Your task to perform on an android device: turn notification dots off Image 0: 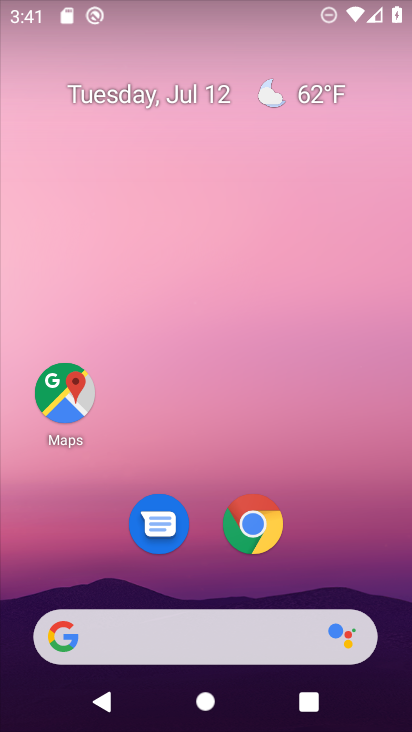
Step 0: drag from (357, 578) to (384, 85)
Your task to perform on an android device: turn notification dots off Image 1: 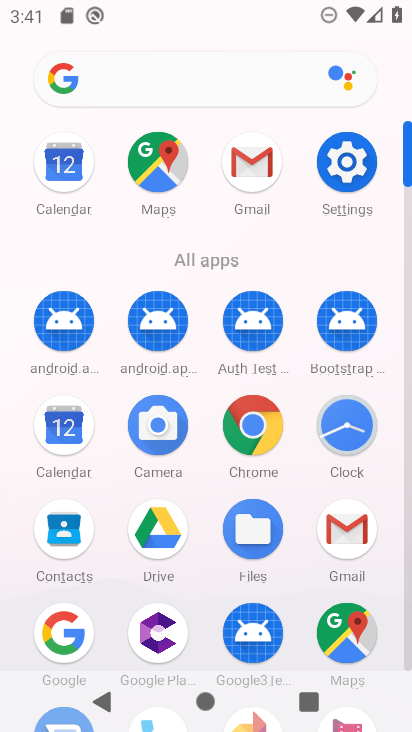
Step 1: click (338, 174)
Your task to perform on an android device: turn notification dots off Image 2: 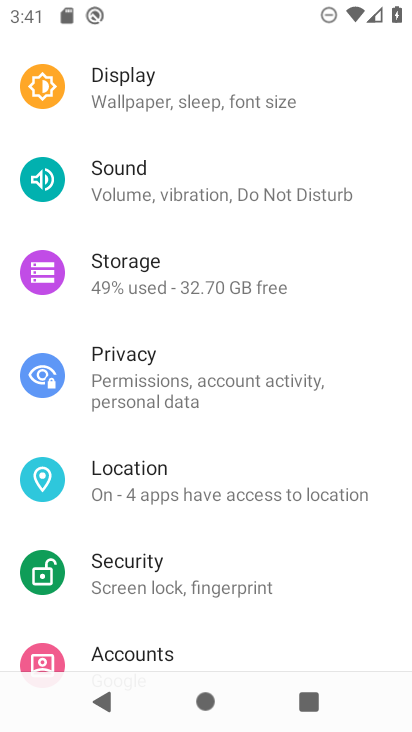
Step 2: drag from (267, 255) to (232, 660)
Your task to perform on an android device: turn notification dots off Image 3: 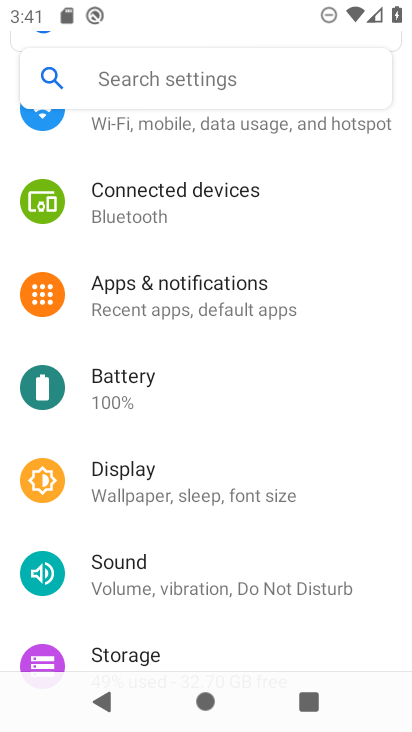
Step 3: click (222, 293)
Your task to perform on an android device: turn notification dots off Image 4: 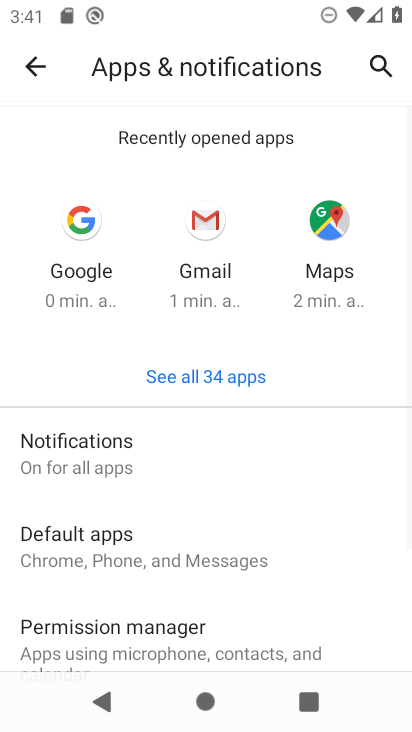
Step 4: click (119, 456)
Your task to perform on an android device: turn notification dots off Image 5: 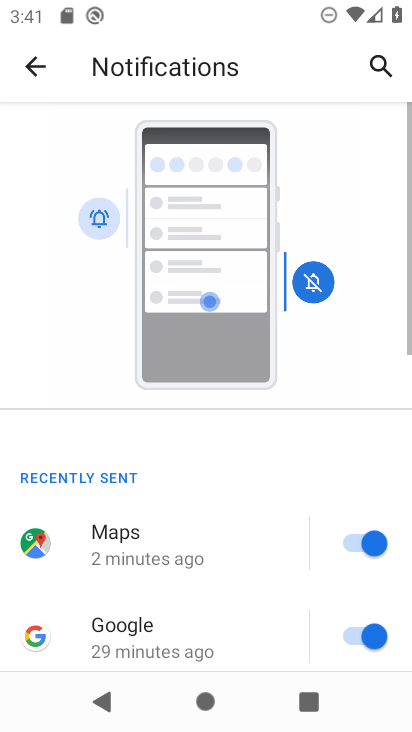
Step 5: drag from (243, 552) to (260, 63)
Your task to perform on an android device: turn notification dots off Image 6: 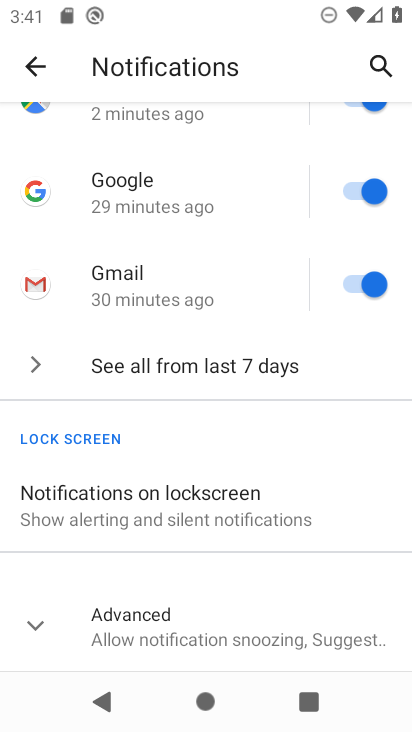
Step 6: click (32, 627)
Your task to perform on an android device: turn notification dots off Image 7: 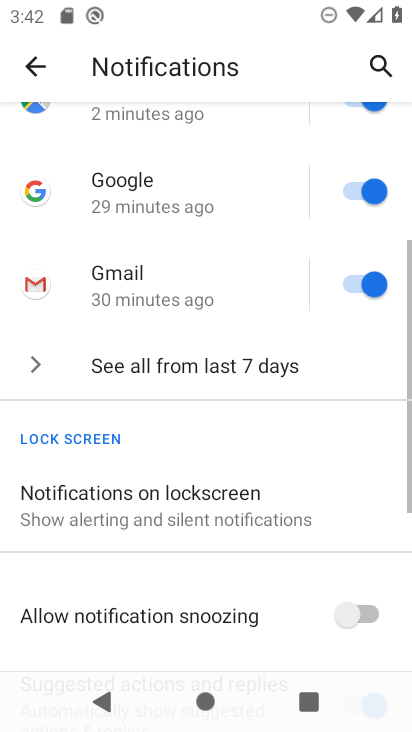
Step 7: drag from (182, 568) to (234, 197)
Your task to perform on an android device: turn notification dots off Image 8: 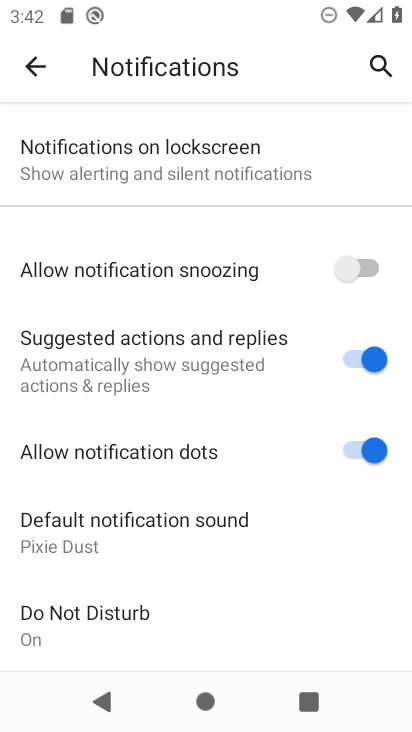
Step 8: click (361, 448)
Your task to perform on an android device: turn notification dots off Image 9: 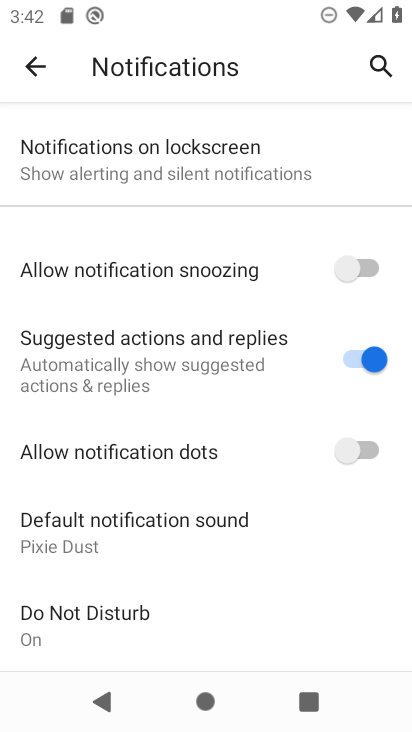
Step 9: task complete